Your task to perform on an android device: Add rayovac triple a to the cart on amazon, then select checkout. Image 0: 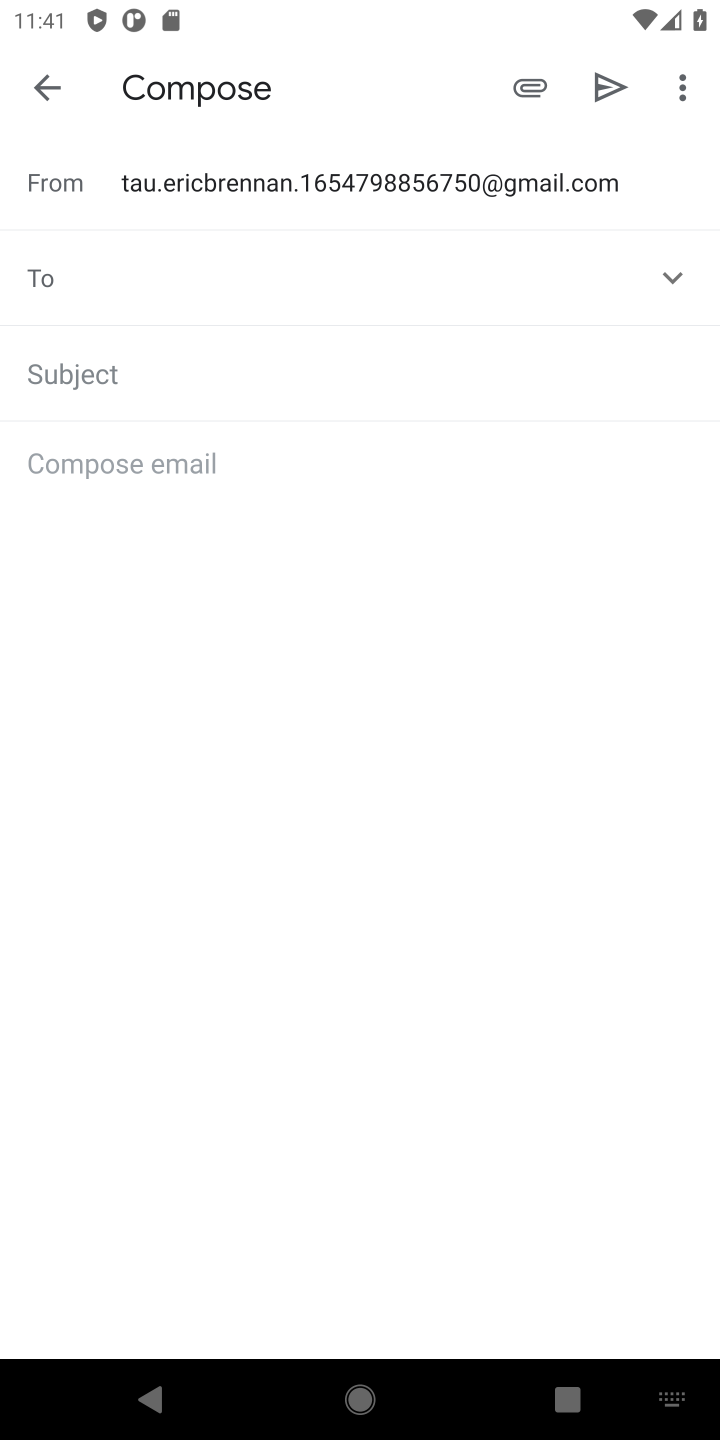
Step 0: task complete